Your task to perform on an android device: Go to Maps Image 0: 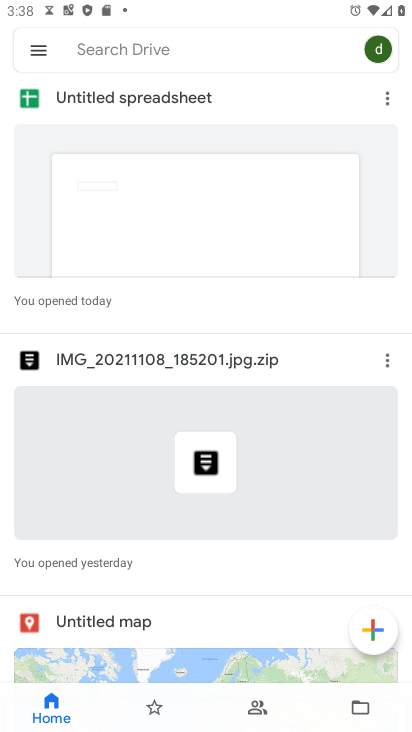
Step 0: press home button
Your task to perform on an android device: Go to Maps Image 1: 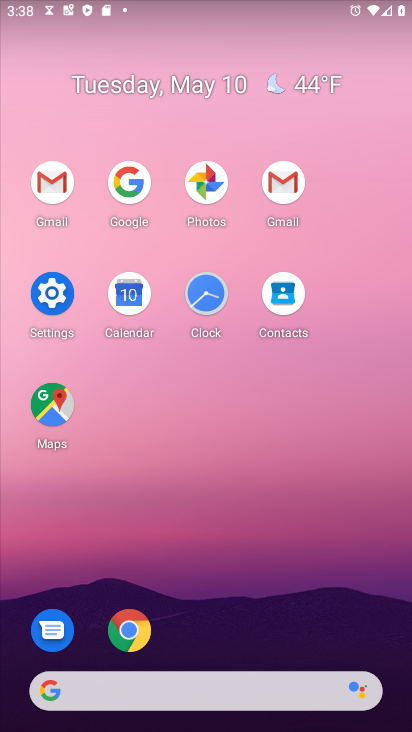
Step 1: click (66, 402)
Your task to perform on an android device: Go to Maps Image 2: 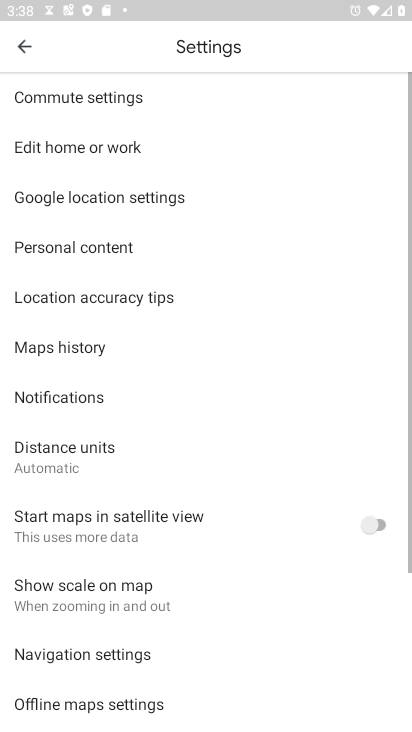
Step 2: task complete